Your task to perform on an android device: turn on the 12-hour format for clock Image 0: 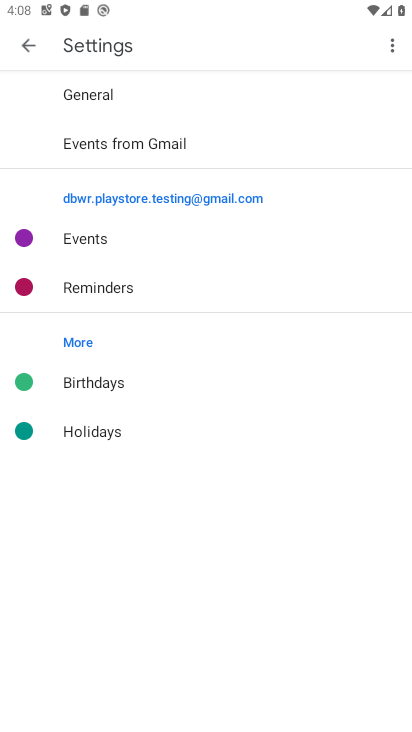
Step 0: press home button
Your task to perform on an android device: turn on the 12-hour format for clock Image 1: 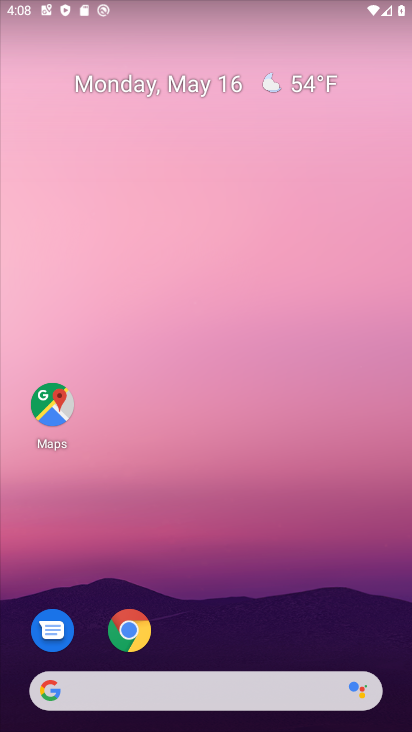
Step 1: drag from (261, 641) to (209, 138)
Your task to perform on an android device: turn on the 12-hour format for clock Image 2: 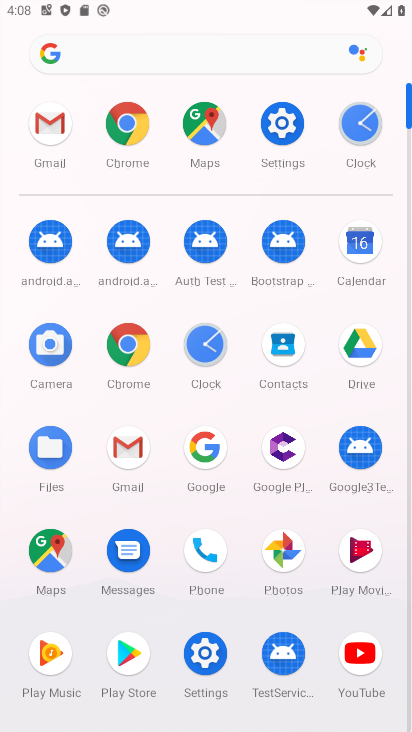
Step 2: click (199, 362)
Your task to perform on an android device: turn on the 12-hour format for clock Image 3: 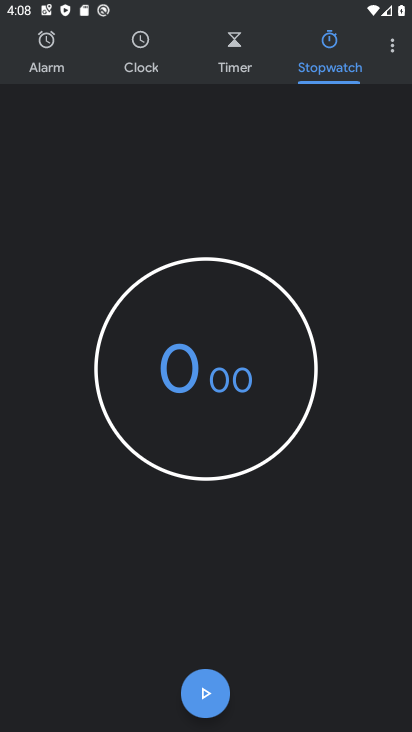
Step 3: click (393, 51)
Your task to perform on an android device: turn on the 12-hour format for clock Image 4: 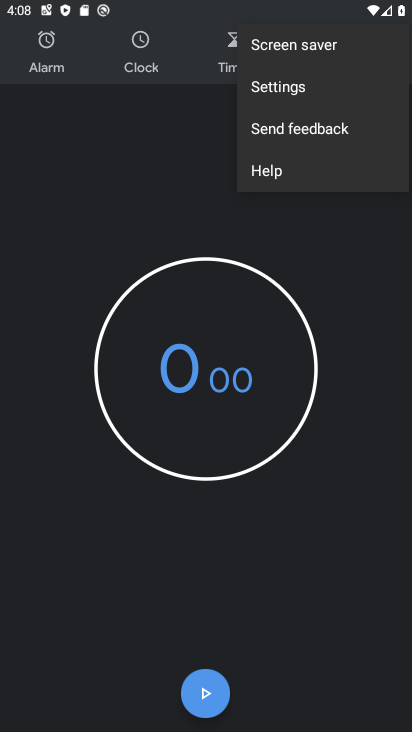
Step 4: click (363, 88)
Your task to perform on an android device: turn on the 12-hour format for clock Image 5: 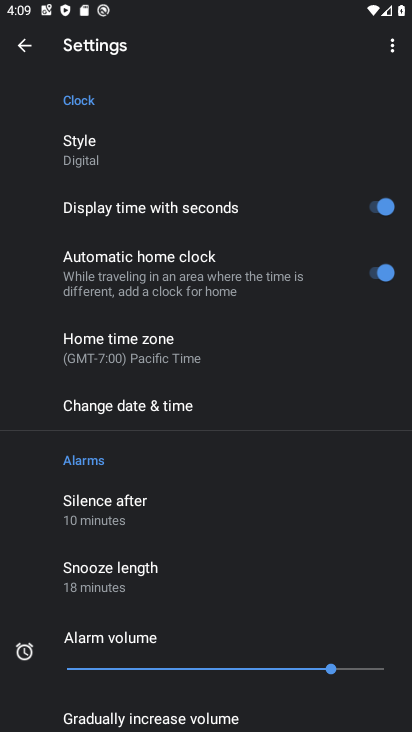
Step 5: click (297, 403)
Your task to perform on an android device: turn on the 12-hour format for clock Image 6: 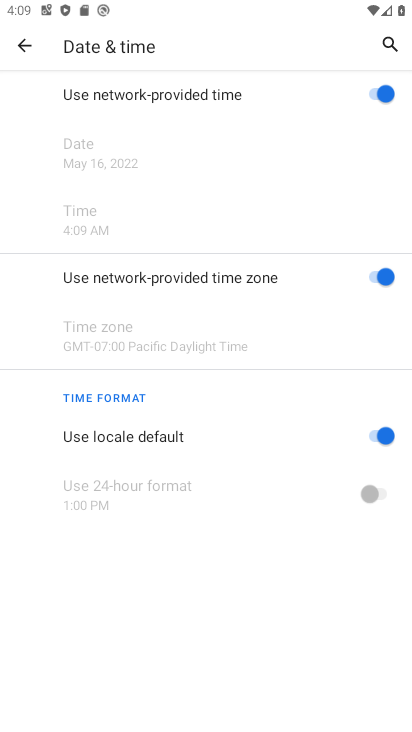
Step 6: task complete